Your task to perform on an android device: Go to location settings Image 0: 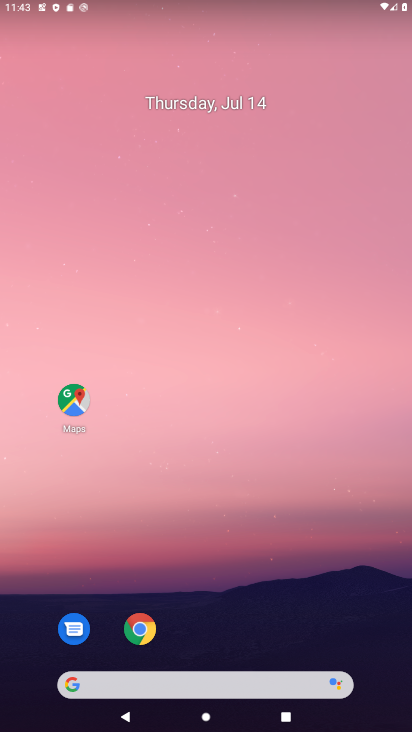
Step 0: press home button
Your task to perform on an android device: Go to location settings Image 1: 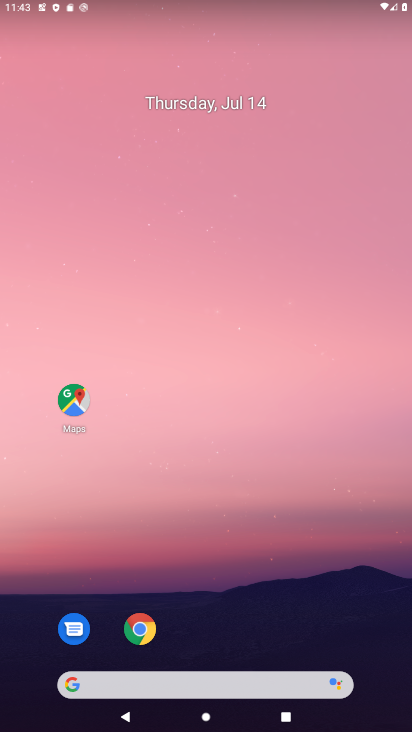
Step 1: drag from (274, 552) to (292, 1)
Your task to perform on an android device: Go to location settings Image 2: 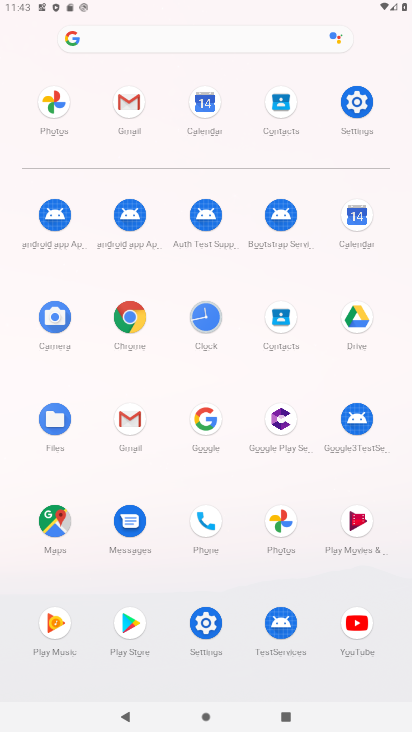
Step 2: click (361, 102)
Your task to perform on an android device: Go to location settings Image 3: 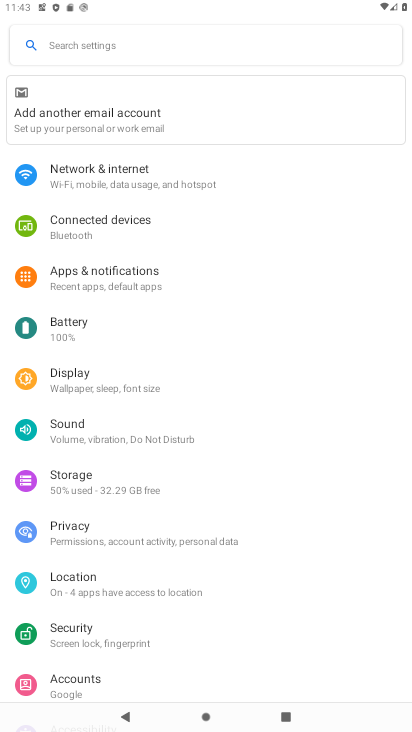
Step 3: click (89, 576)
Your task to perform on an android device: Go to location settings Image 4: 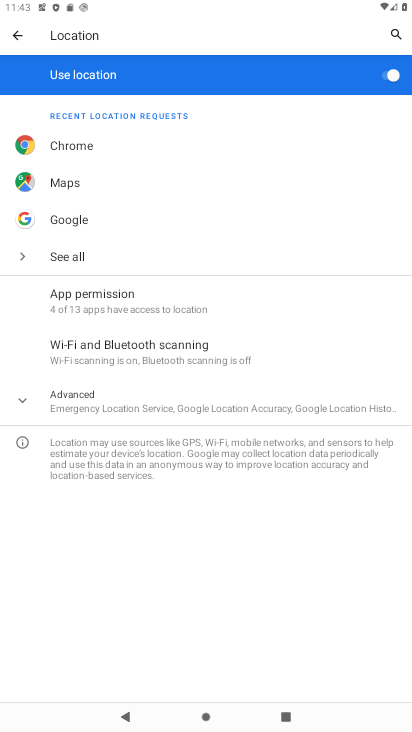
Step 4: task complete